Your task to perform on an android device: toggle notification dots Image 0: 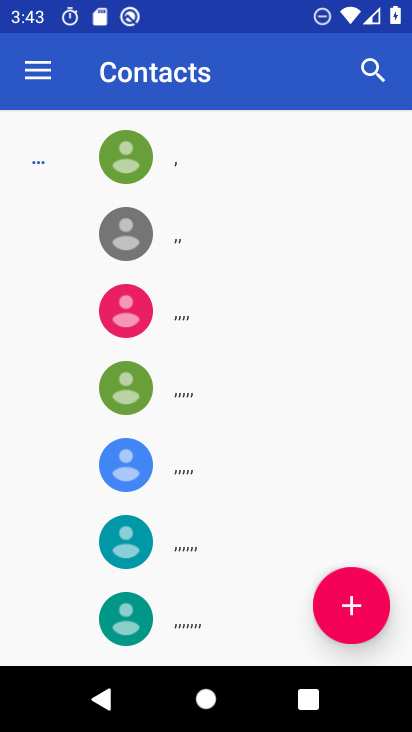
Step 0: press home button
Your task to perform on an android device: toggle notification dots Image 1: 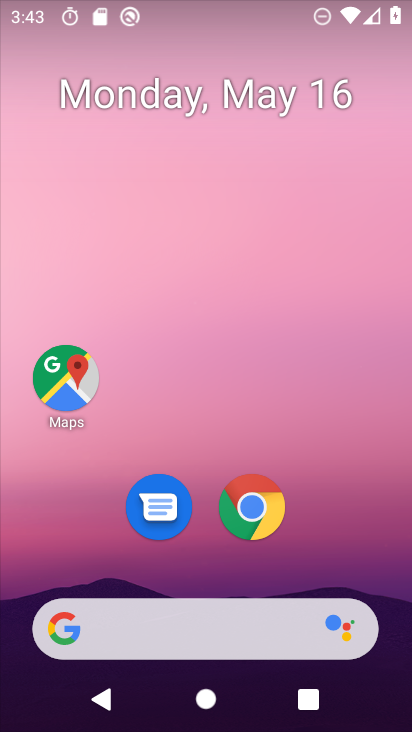
Step 1: drag from (387, 469) to (411, 55)
Your task to perform on an android device: toggle notification dots Image 2: 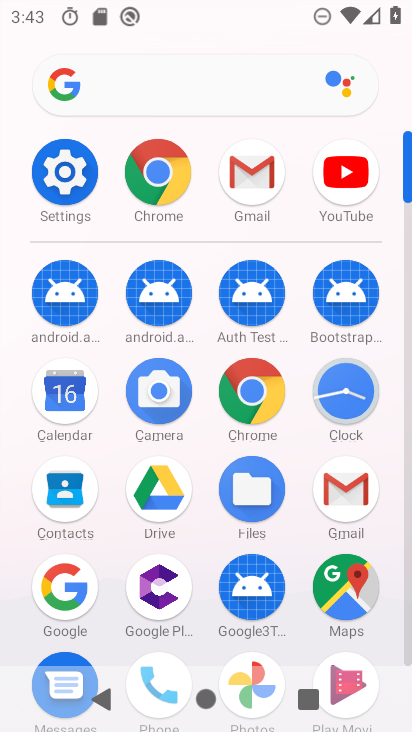
Step 2: click (79, 164)
Your task to perform on an android device: toggle notification dots Image 3: 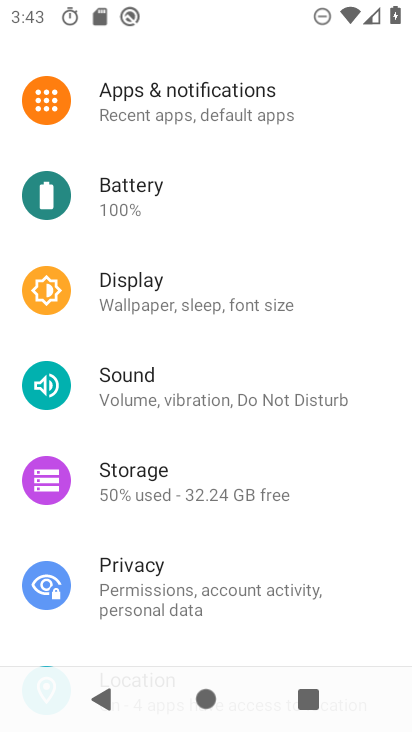
Step 3: drag from (193, 344) to (183, 561)
Your task to perform on an android device: toggle notification dots Image 4: 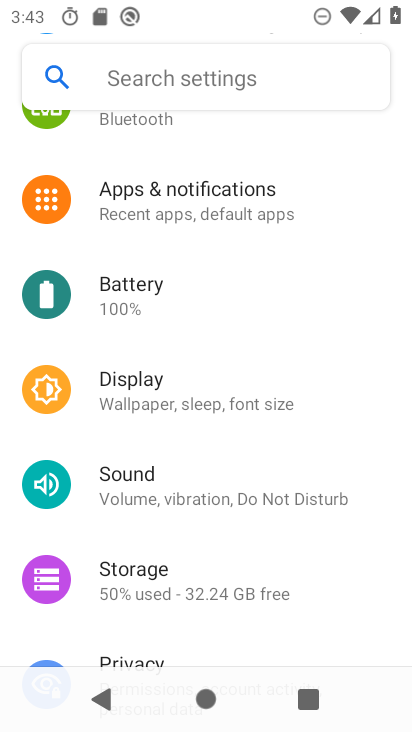
Step 4: click (220, 198)
Your task to perform on an android device: toggle notification dots Image 5: 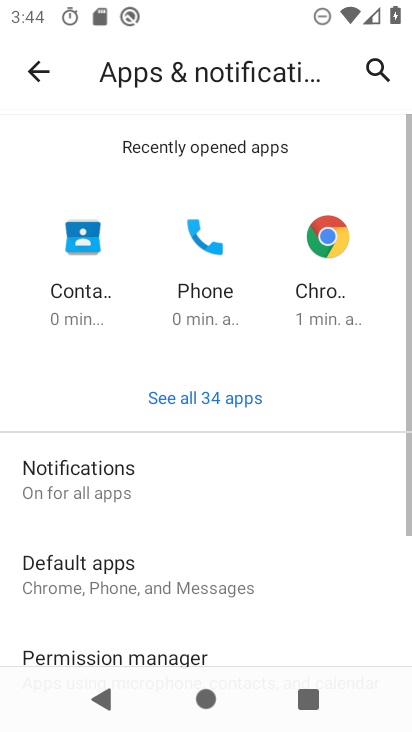
Step 5: drag from (153, 523) to (130, 112)
Your task to perform on an android device: toggle notification dots Image 6: 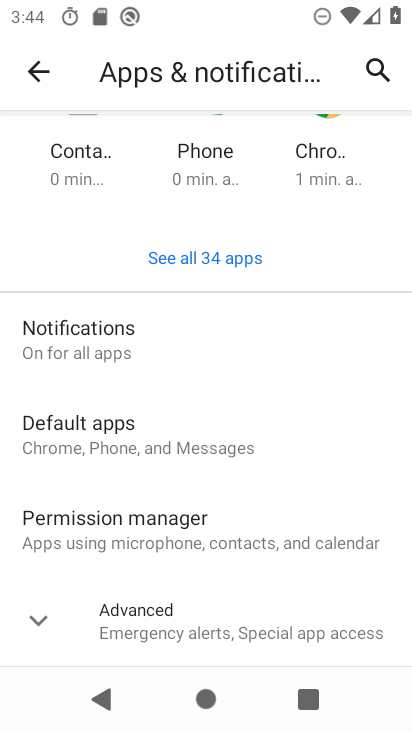
Step 6: click (95, 349)
Your task to perform on an android device: toggle notification dots Image 7: 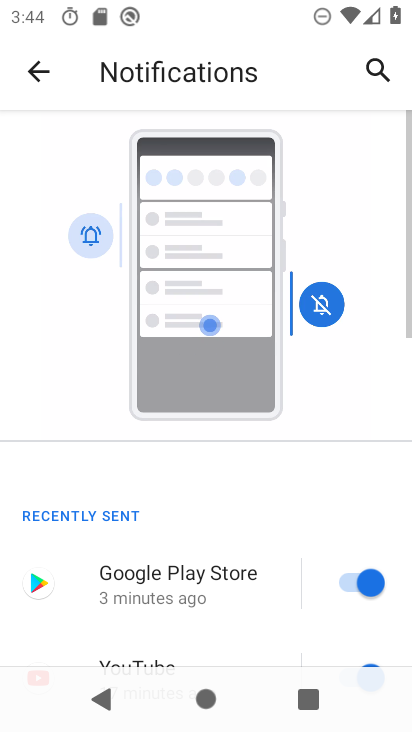
Step 7: drag from (157, 564) to (226, 62)
Your task to perform on an android device: toggle notification dots Image 8: 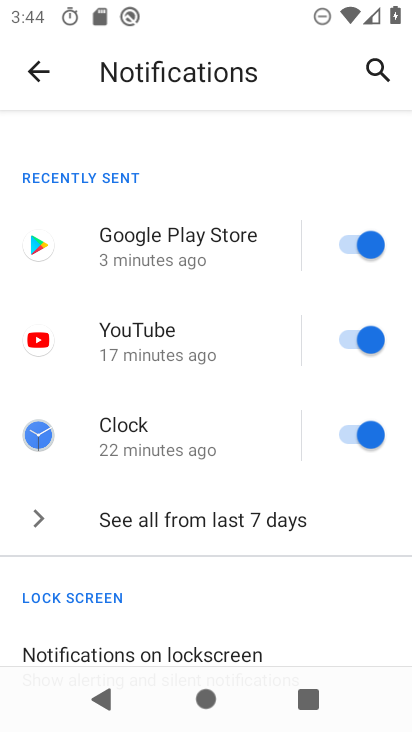
Step 8: drag from (155, 602) to (252, 128)
Your task to perform on an android device: toggle notification dots Image 9: 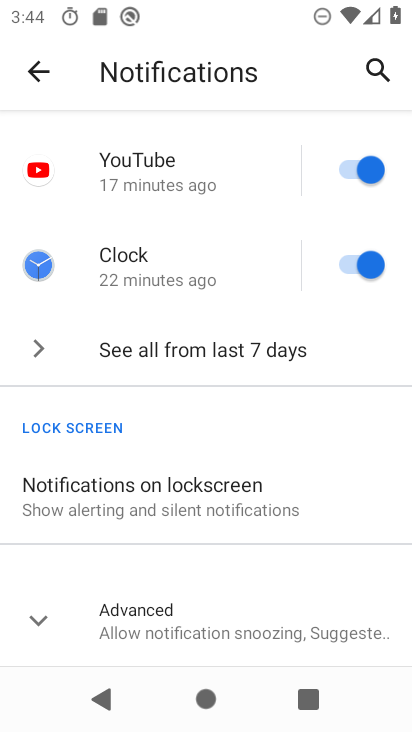
Step 9: drag from (180, 539) to (236, 237)
Your task to perform on an android device: toggle notification dots Image 10: 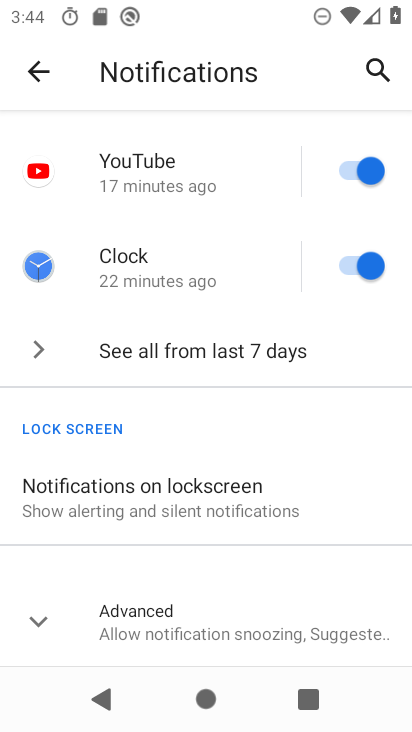
Step 10: click (170, 605)
Your task to perform on an android device: toggle notification dots Image 11: 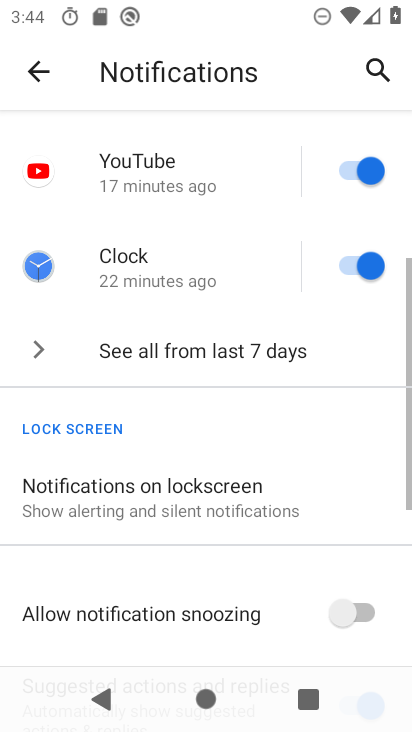
Step 11: drag from (193, 621) to (271, 207)
Your task to perform on an android device: toggle notification dots Image 12: 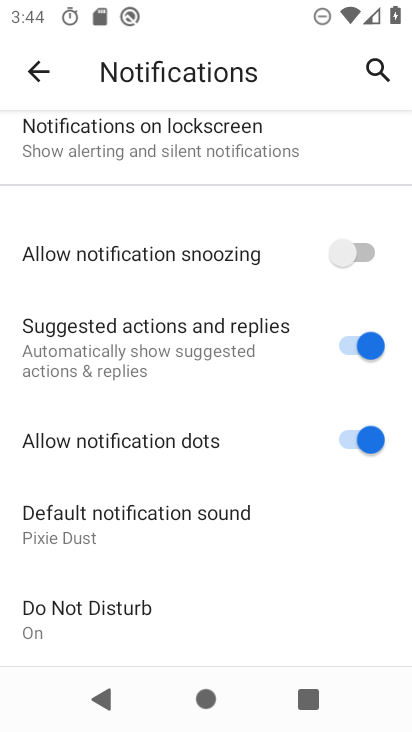
Step 12: click (363, 442)
Your task to perform on an android device: toggle notification dots Image 13: 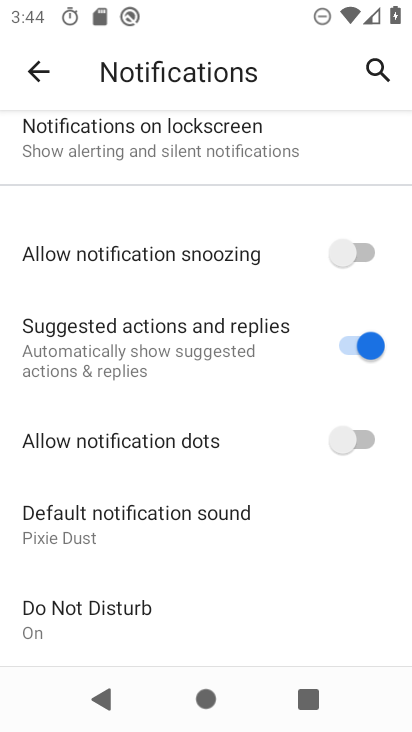
Step 13: task complete